Your task to perform on an android device: change the upload size in google photos Image 0: 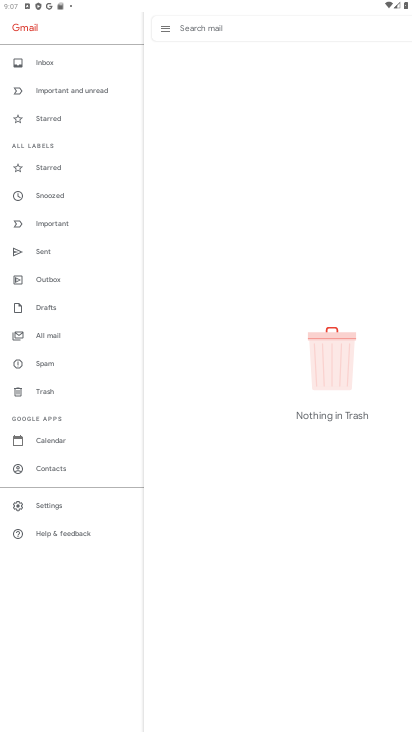
Step 0: press home button
Your task to perform on an android device: change the upload size in google photos Image 1: 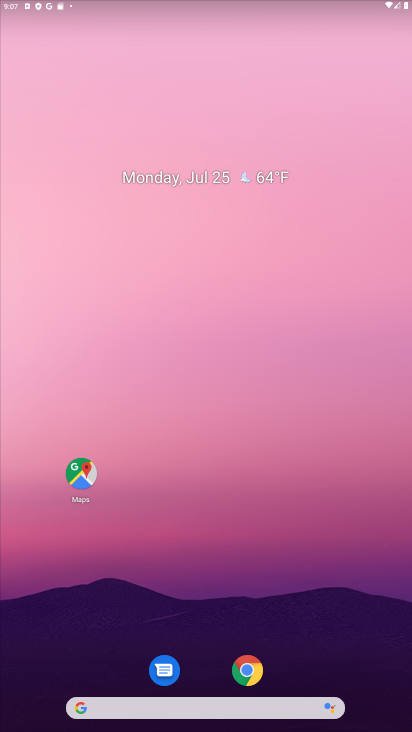
Step 1: drag from (334, 601) to (110, 25)
Your task to perform on an android device: change the upload size in google photos Image 2: 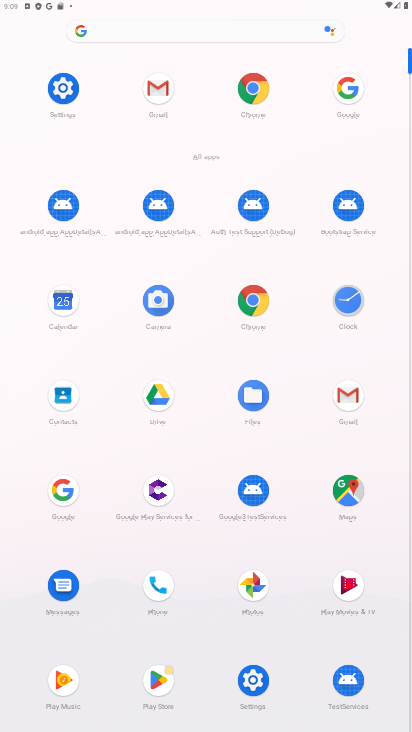
Step 2: click (255, 579)
Your task to perform on an android device: change the upload size in google photos Image 3: 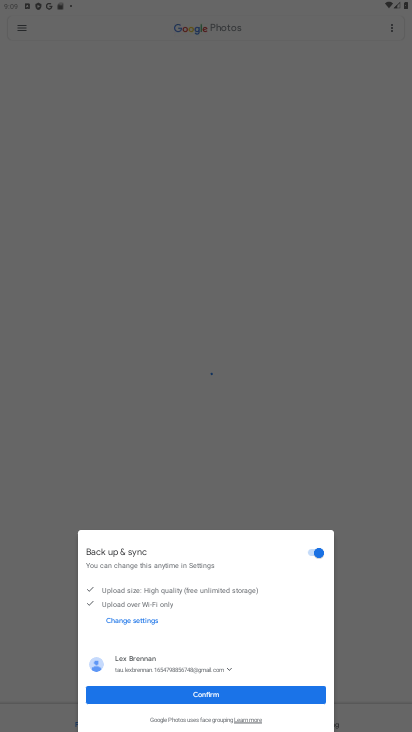
Step 3: click (150, 691)
Your task to perform on an android device: change the upload size in google photos Image 4: 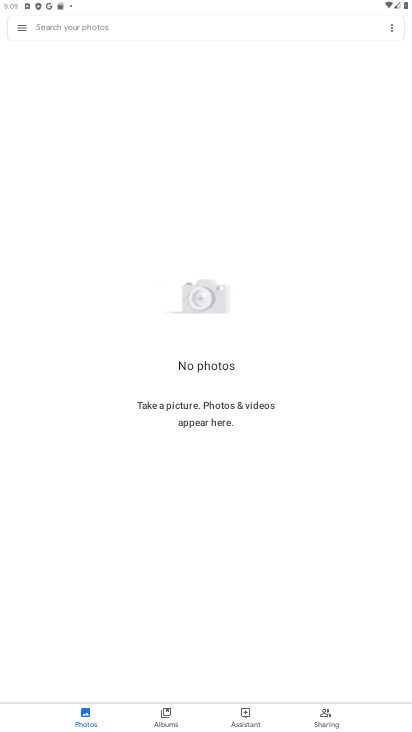
Step 4: click (21, 28)
Your task to perform on an android device: change the upload size in google photos Image 5: 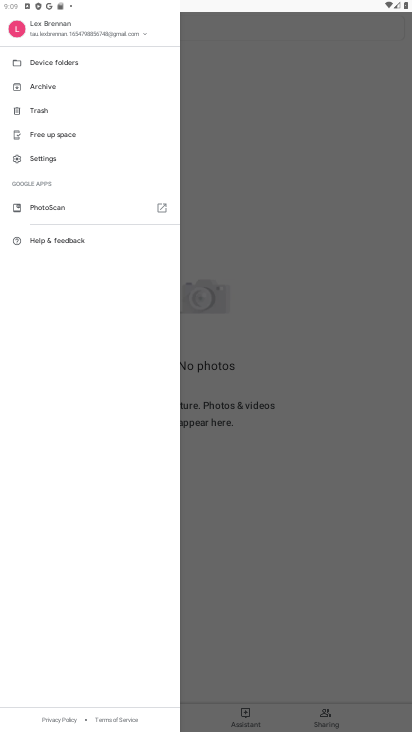
Step 5: click (45, 162)
Your task to perform on an android device: change the upload size in google photos Image 6: 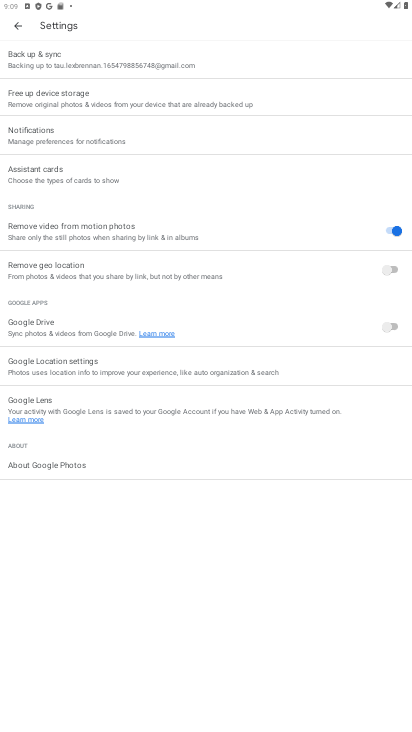
Step 6: click (60, 60)
Your task to perform on an android device: change the upload size in google photos Image 7: 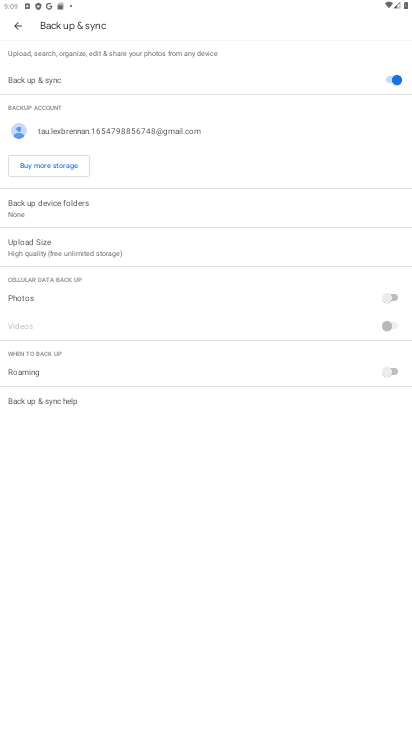
Step 7: click (53, 252)
Your task to perform on an android device: change the upload size in google photos Image 8: 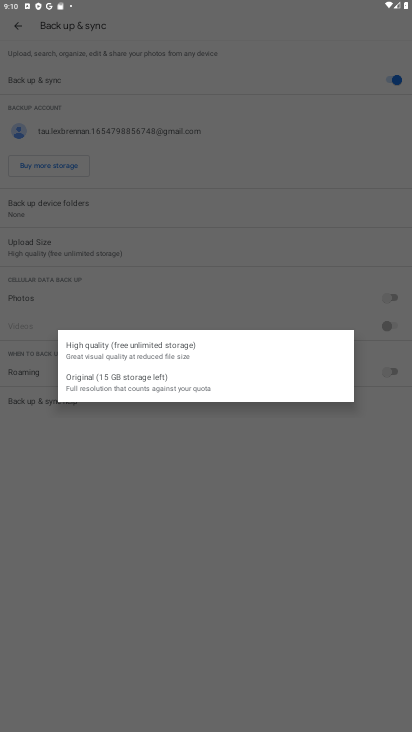
Step 8: click (101, 379)
Your task to perform on an android device: change the upload size in google photos Image 9: 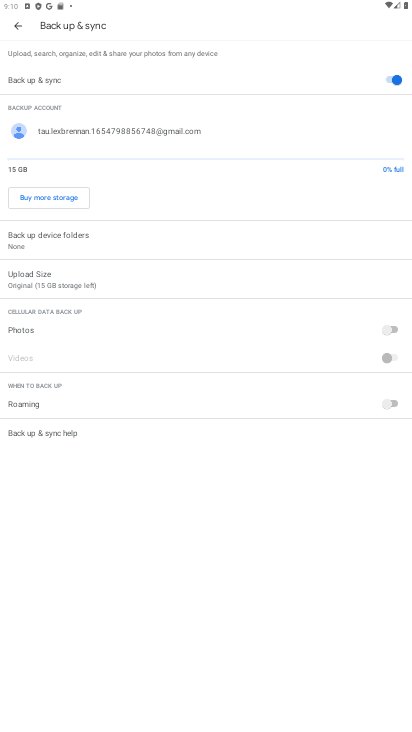
Step 9: task complete